Your task to perform on an android device: open wifi settings Image 0: 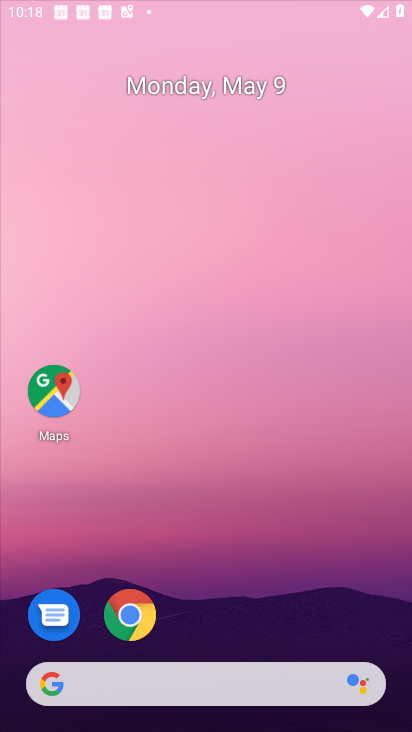
Step 0: drag from (286, 699) to (274, 327)
Your task to perform on an android device: open wifi settings Image 1: 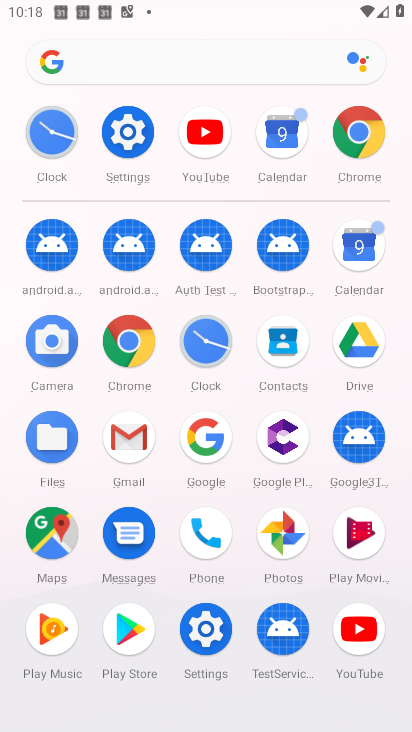
Step 1: click (216, 640)
Your task to perform on an android device: open wifi settings Image 2: 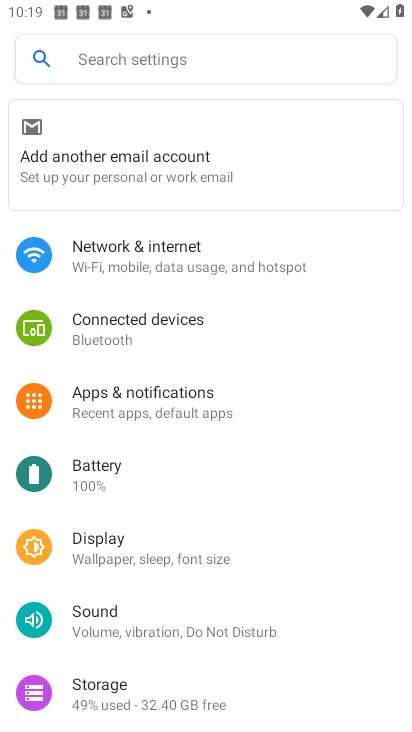
Step 2: click (179, 253)
Your task to perform on an android device: open wifi settings Image 3: 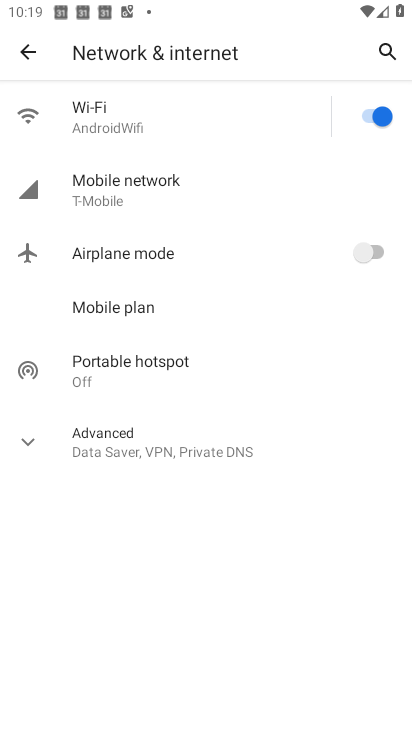
Step 3: click (123, 109)
Your task to perform on an android device: open wifi settings Image 4: 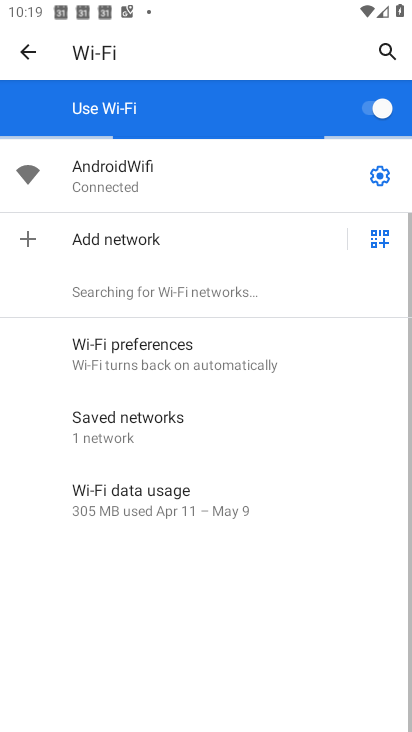
Step 4: task complete